Your task to perform on an android device: Open Wikipedia Image 0: 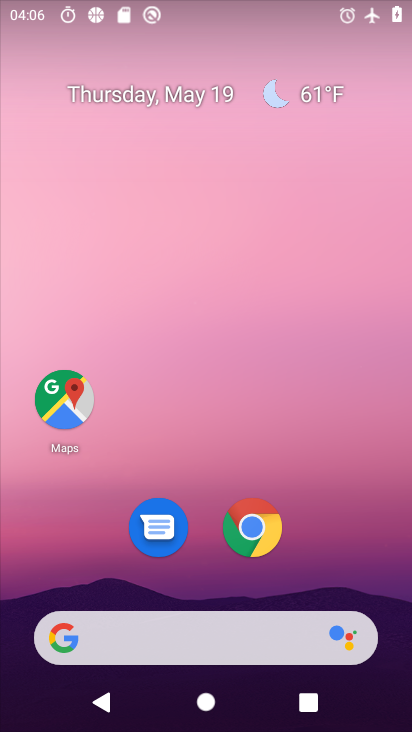
Step 0: click (251, 540)
Your task to perform on an android device: Open Wikipedia Image 1: 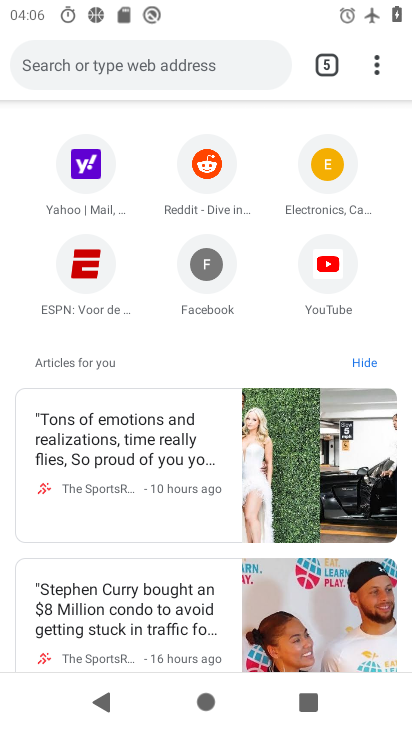
Step 1: click (88, 56)
Your task to perform on an android device: Open Wikipedia Image 2: 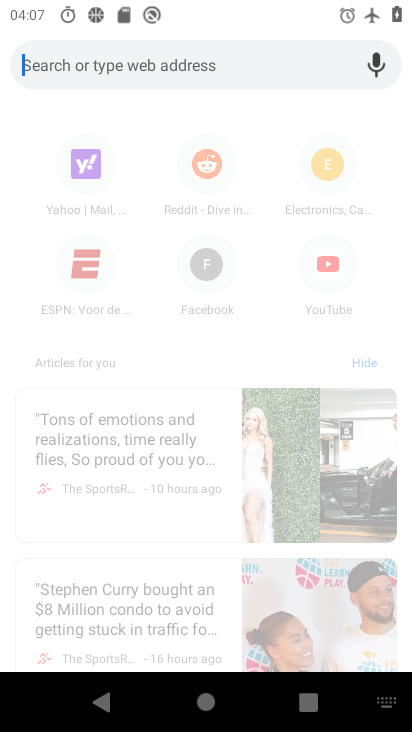
Step 2: type "wikipedia"
Your task to perform on an android device: Open Wikipedia Image 3: 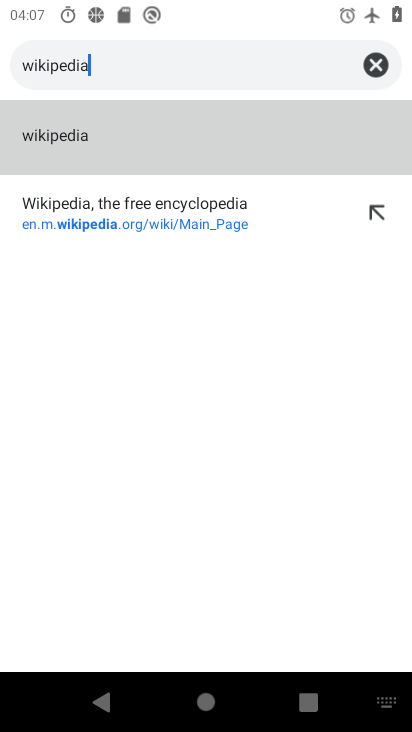
Step 3: click (204, 221)
Your task to perform on an android device: Open Wikipedia Image 4: 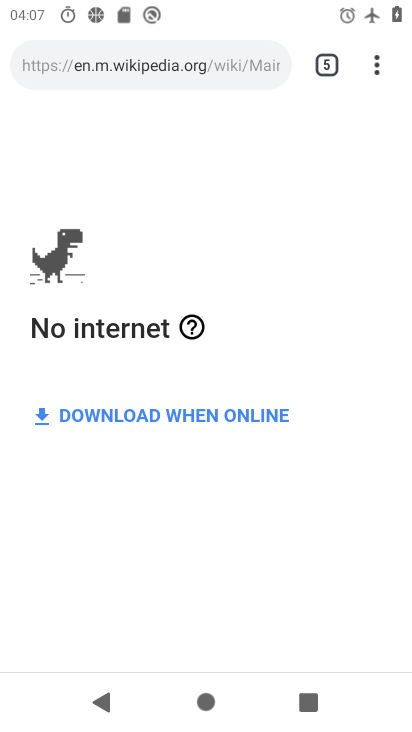
Step 4: drag from (341, 18) to (272, 641)
Your task to perform on an android device: Open Wikipedia Image 5: 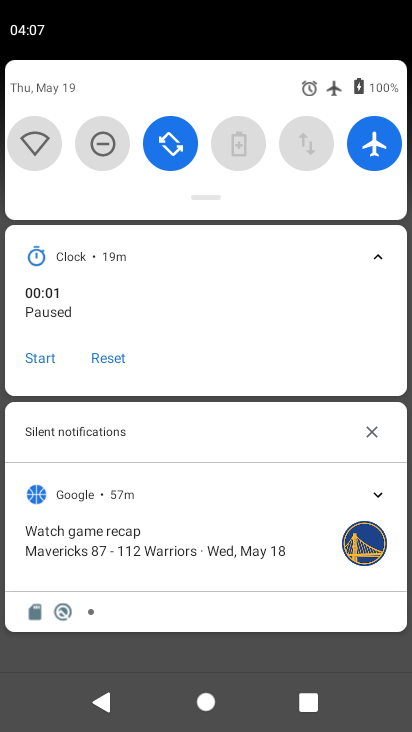
Step 5: click (371, 151)
Your task to perform on an android device: Open Wikipedia Image 6: 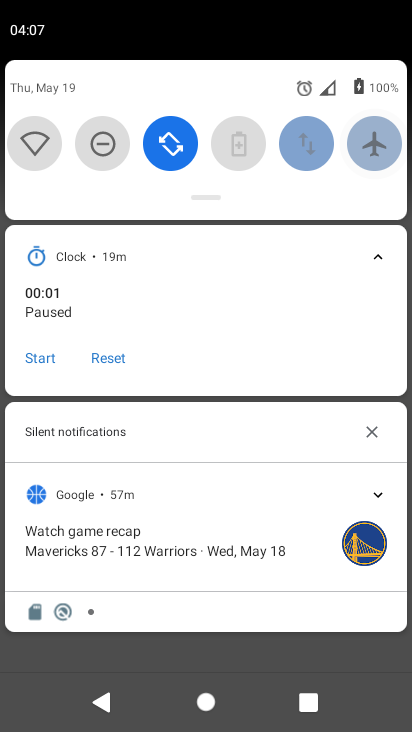
Step 6: click (148, 652)
Your task to perform on an android device: Open Wikipedia Image 7: 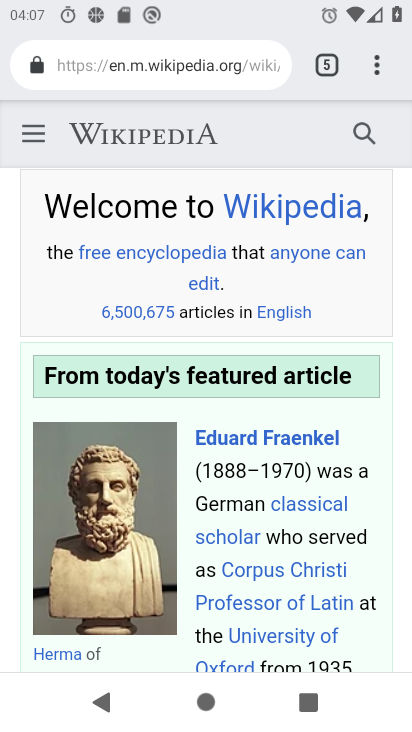
Step 7: task complete